Your task to perform on an android device: install app "Life360: Find Family & Friends" Image 0: 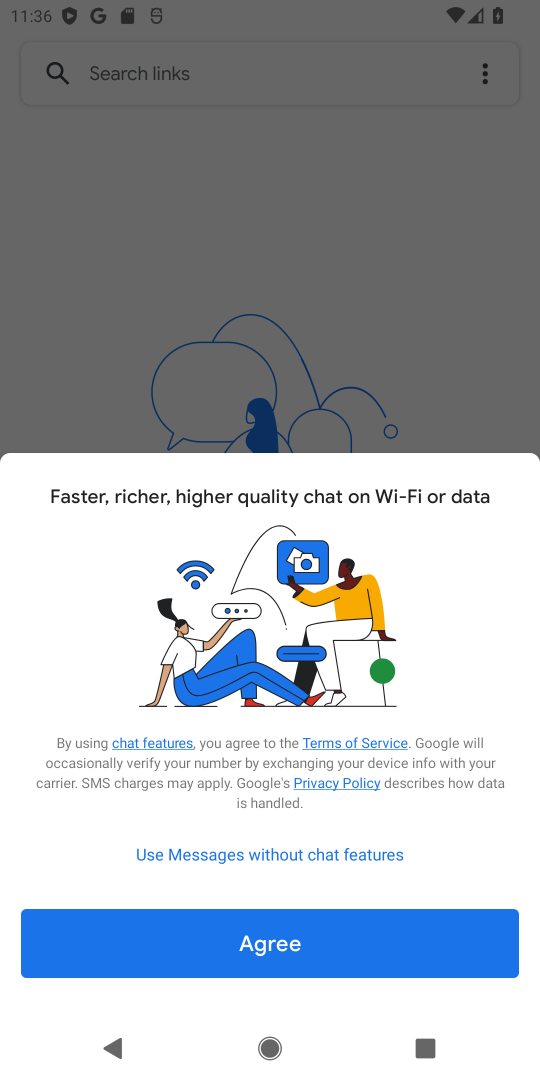
Step 0: press home button
Your task to perform on an android device: install app "Life360: Find Family & Friends" Image 1: 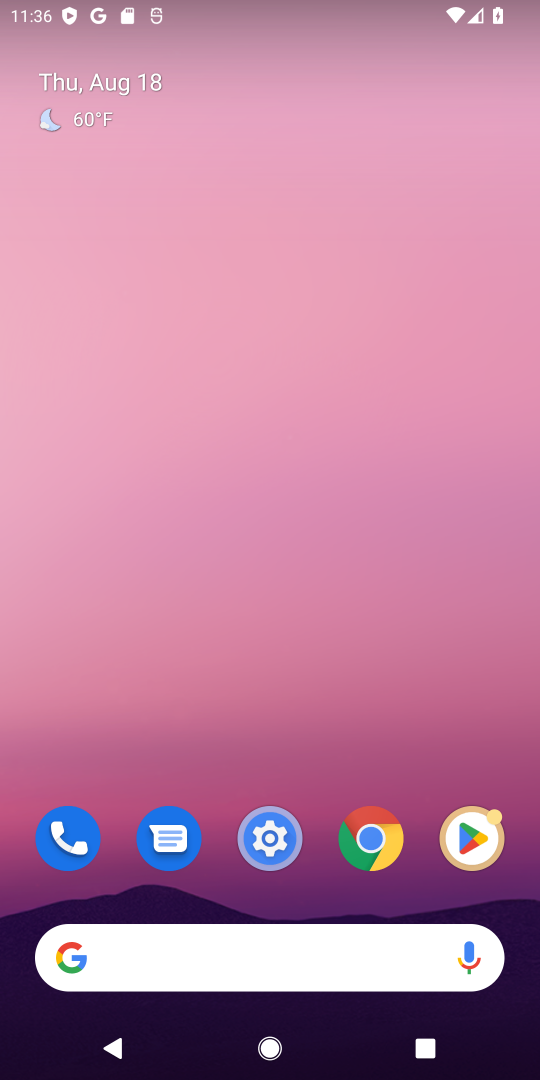
Step 1: click (476, 852)
Your task to perform on an android device: install app "Life360: Find Family & Friends" Image 2: 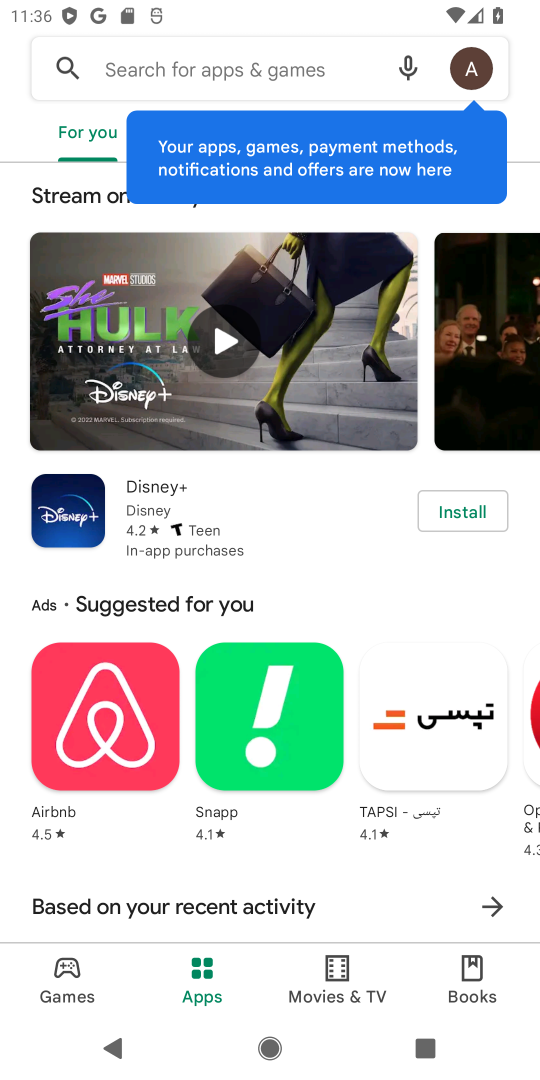
Step 2: click (347, 72)
Your task to perform on an android device: install app "Life360: Find Family & Friends" Image 3: 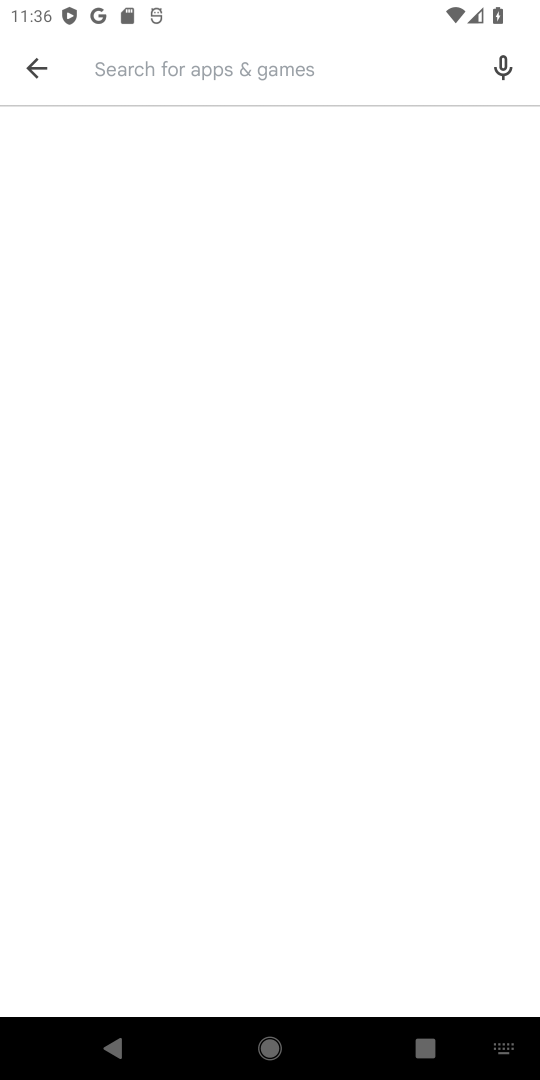
Step 3: type "Life360: Find Family & Friends"
Your task to perform on an android device: install app "Life360: Find Family & Friends" Image 4: 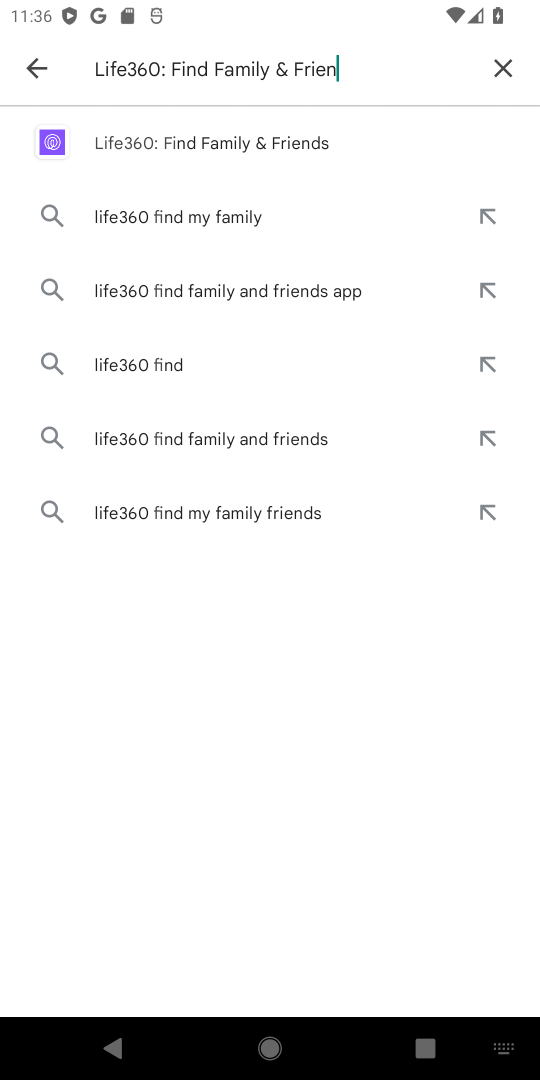
Step 4: type ""
Your task to perform on an android device: install app "Life360: Find Family & Friends" Image 5: 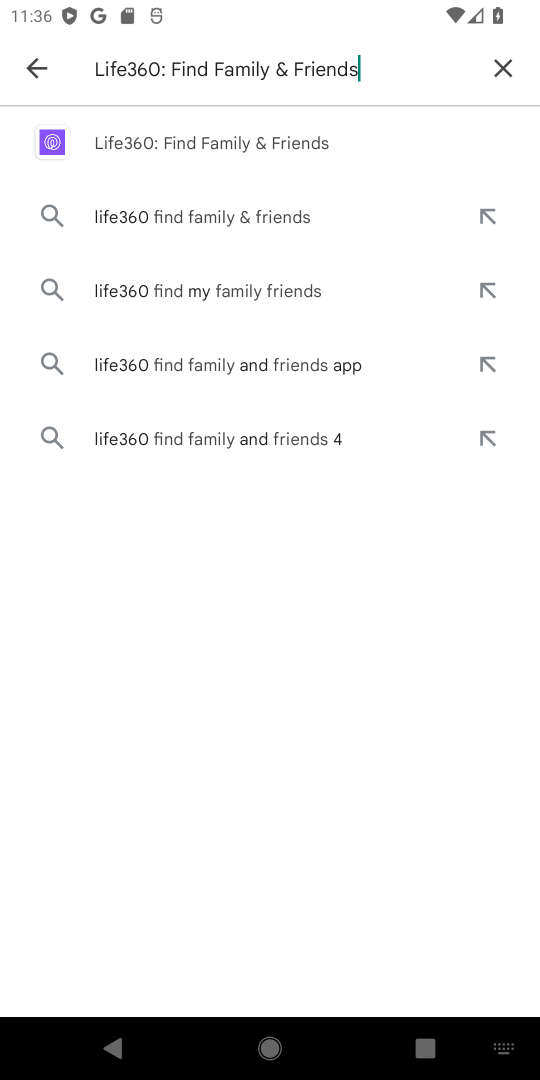
Step 5: click (236, 125)
Your task to perform on an android device: install app "Life360: Find Family & Friends" Image 6: 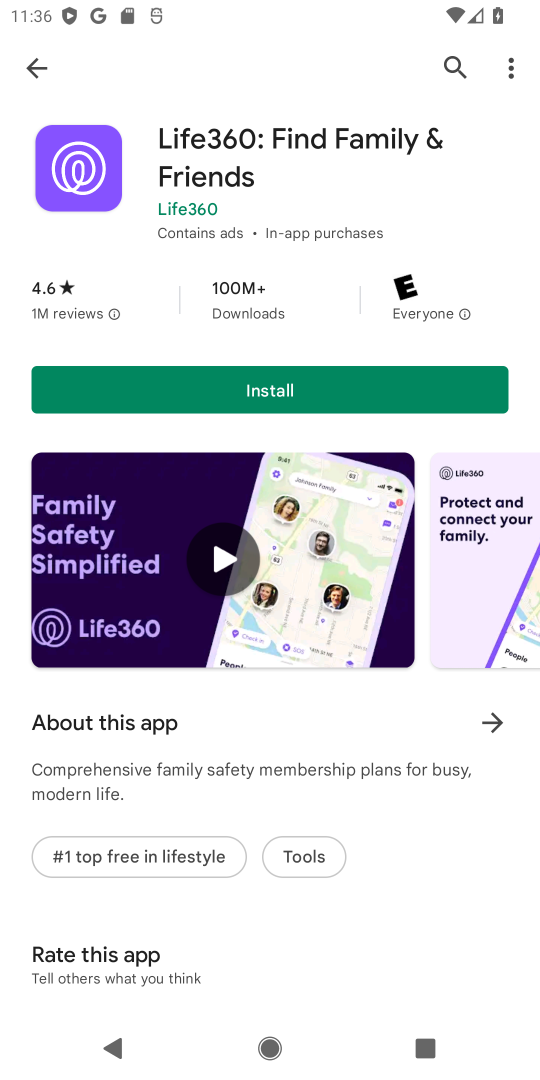
Step 6: click (259, 407)
Your task to perform on an android device: install app "Life360: Find Family & Friends" Image 7: 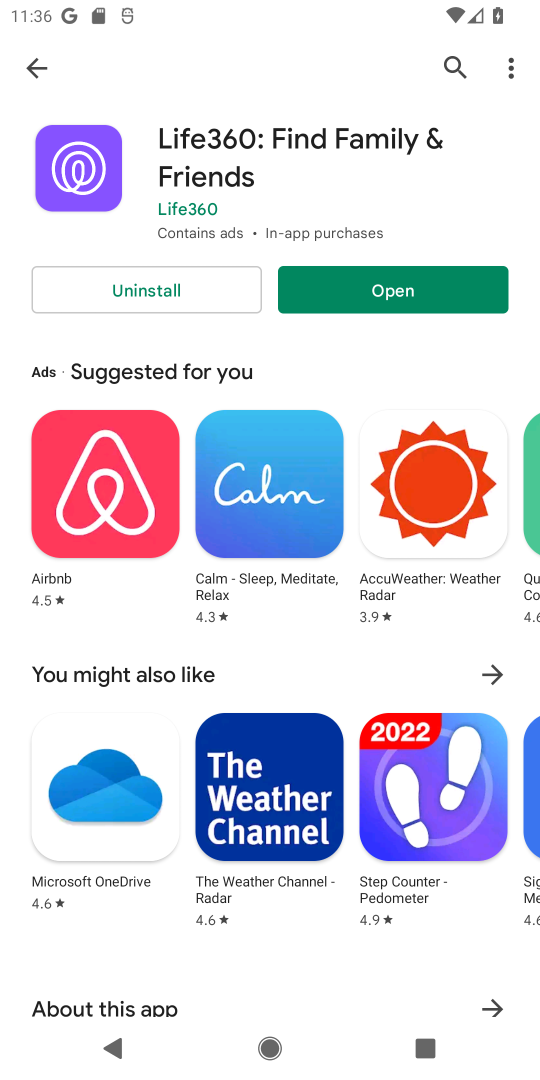
Step 7: task complete